Your task to perform on an android device: Open the map Image 0: 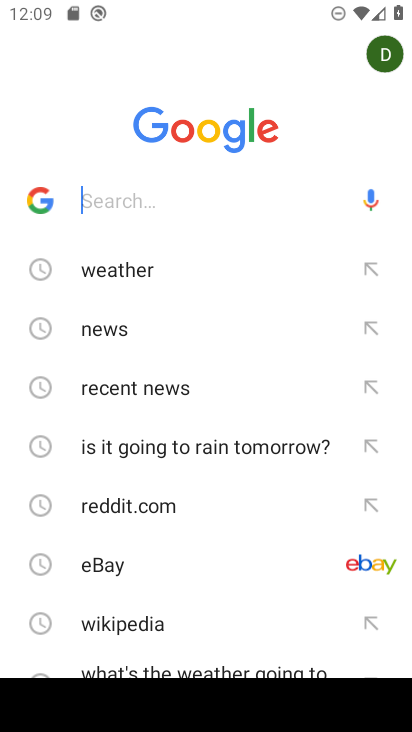
Step 0: press home button
Your task to perform on an android device: Open the map Image 1: 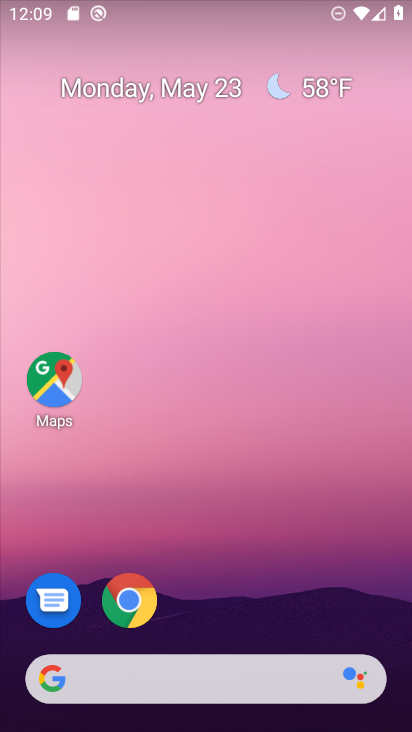
Step 1: drag from (319, 620) to (267, 193)
Your task to perform on an android device: Open the map Image 2: 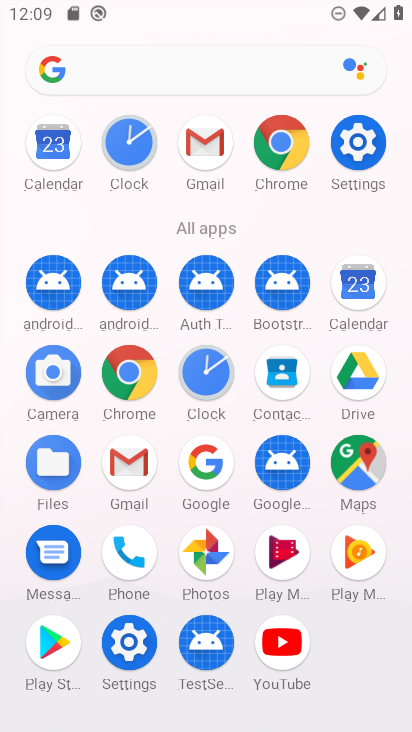
Step 2: click (367, 456)
Your task to perform on an android device: Open the map Image 3: 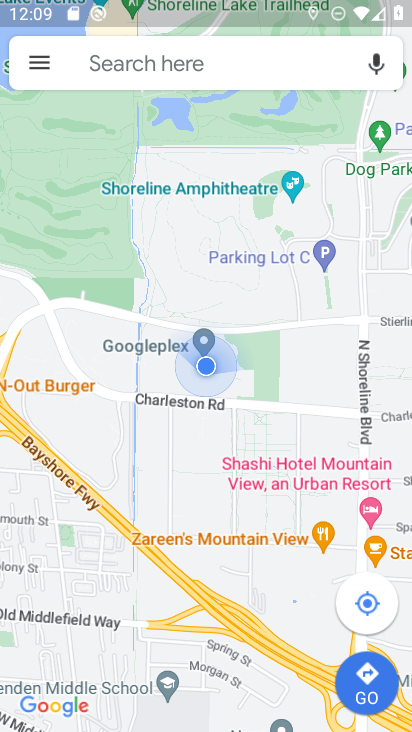
Step 3: task complete